Your task to perform on an android device: toggle notifications settings in the gmail app Image 0: 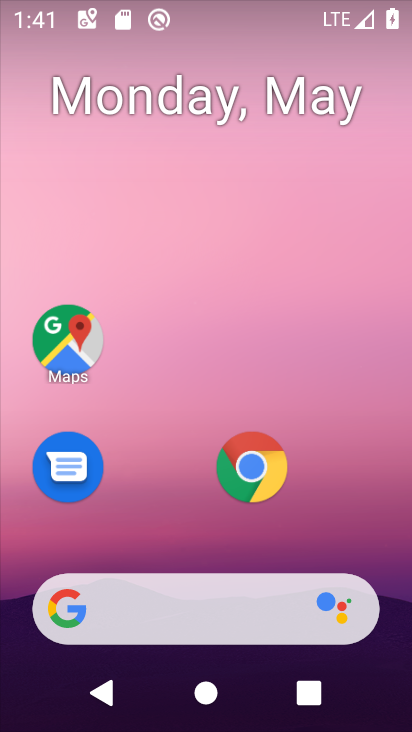
Step 0: drag from (221, 535) to (200, 69)
Your task to perform on an android device: toggle notifications settings in the gmail app Image 1: 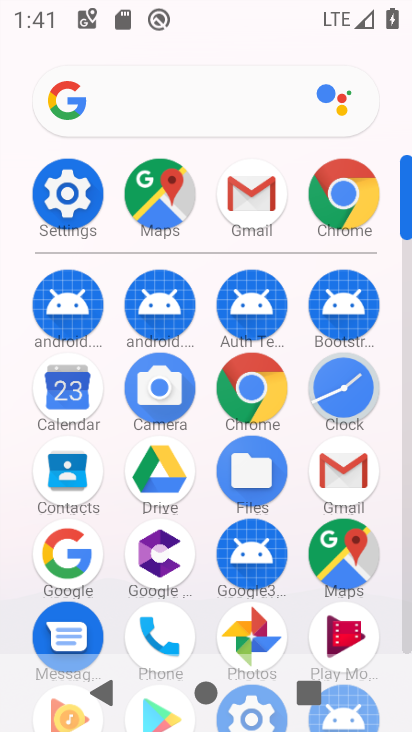
Step 1: click (353, 464)
Your task to perform on an android device: toggle notifications settings in the gmail app Image 2: 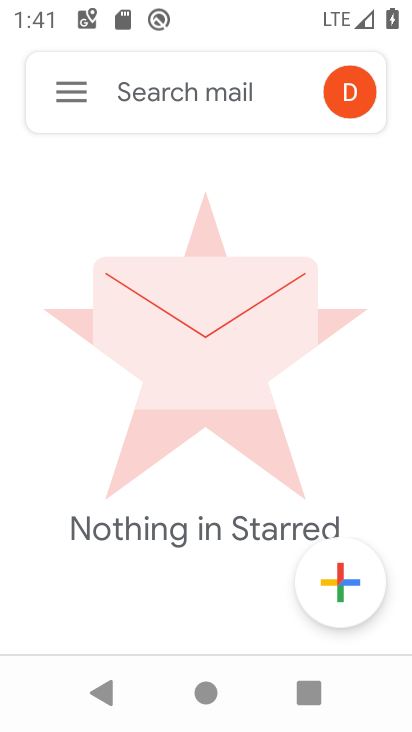
Step 2: click (63, 94)
Your task to perform on an android device: toggle notifications settings in the gmail app Image 3: 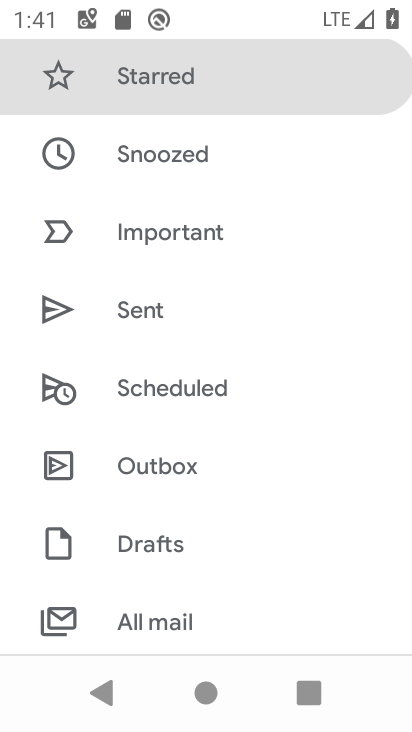
Step 3: drag from (158, 577) to (268, 61)
Your task to perform on an android device: toggle notifications settings in the gmail app Image 4: 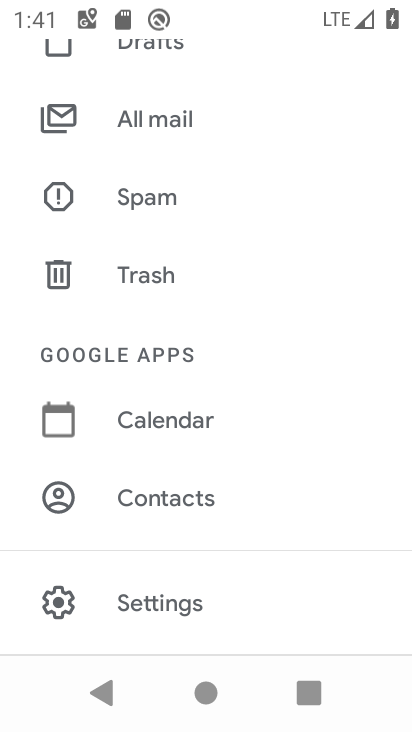
Step 4: click (155, 599)
Your task to perform on an android device: toggle notifications settings in the gmail app Image 5: 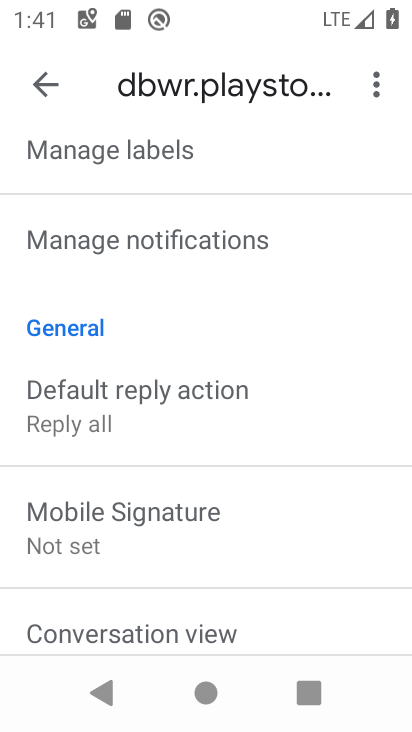
Step 5: click (170, 244)
Your task to perform on an android device: toggle notifications settings in the gmail app Image 6: 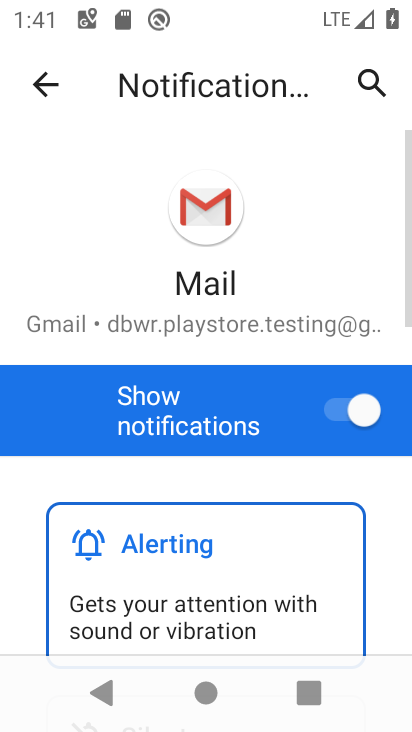
Step 6: click (352, 405)
Your task to perform on an android device: toggle notifications settings in the gmail app Image 7: 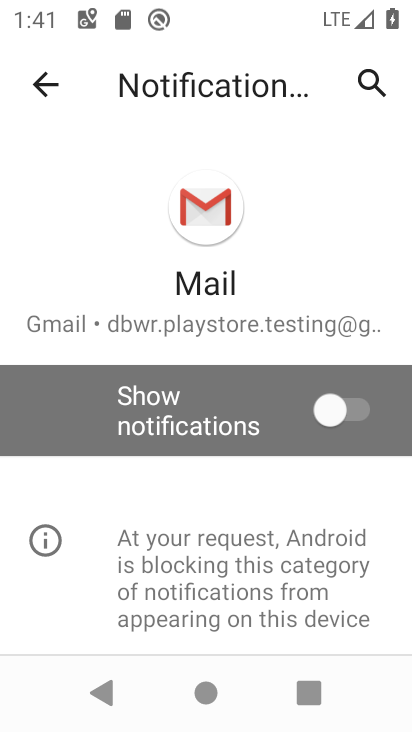
Step 7: task complete